Your task to perform on an android device: see sites visited before in the chrome app Image 0: 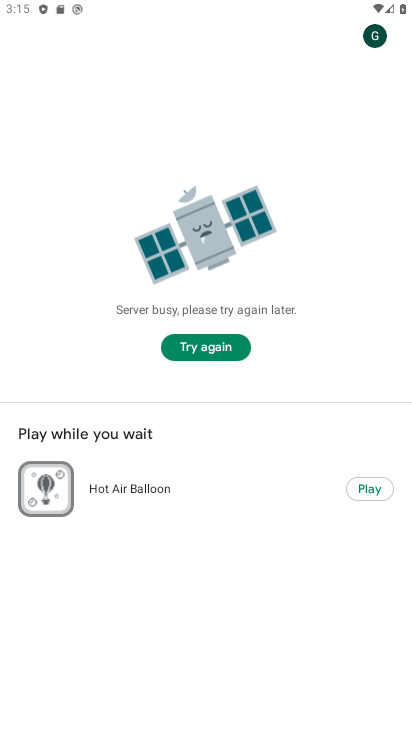
Step 0: press home button
Your task to perform on an android device: see sites visited before in the chrome app Image 1: 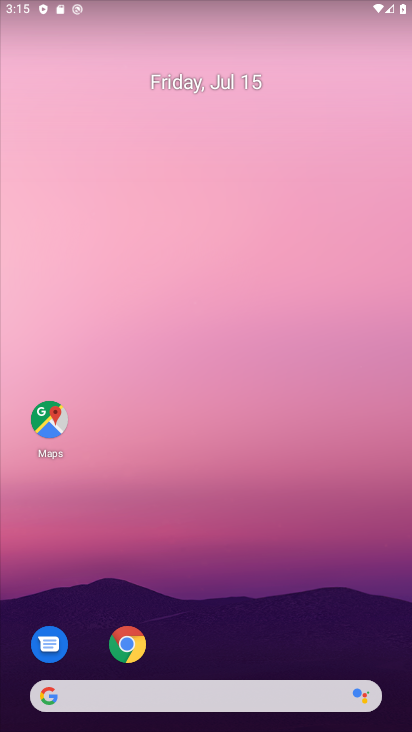
Step 1: click (129, 639)
Your task to perform on an android device: see sites visited before in the chrome app Image 2: 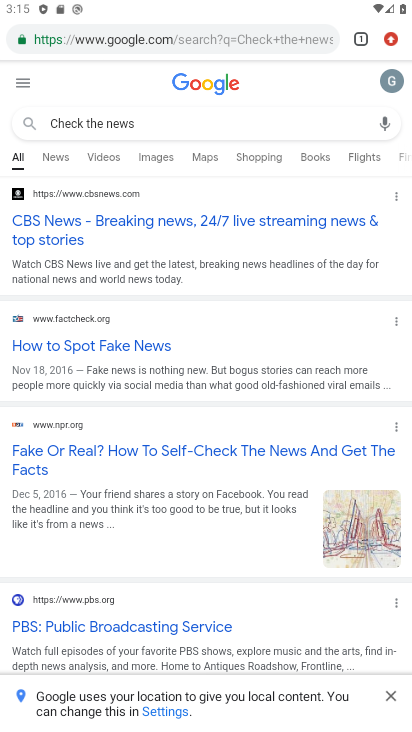
Step 2: click (392, 44)
Your task to perform on an android device: see sites visited before in the chrome app Image 3: 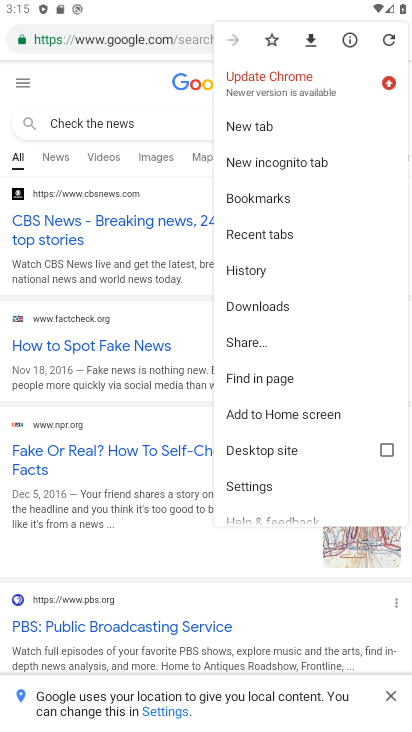
Step 3: click (284, 266)
Your task to perform on an android device: see sites visited before in the chrome app Image 4: 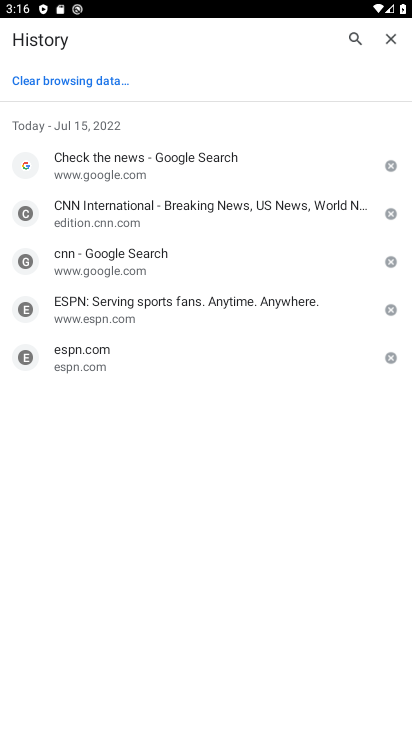
Step 4: task complete